Your task to perform on an android device: toggle notification dots Image 0: 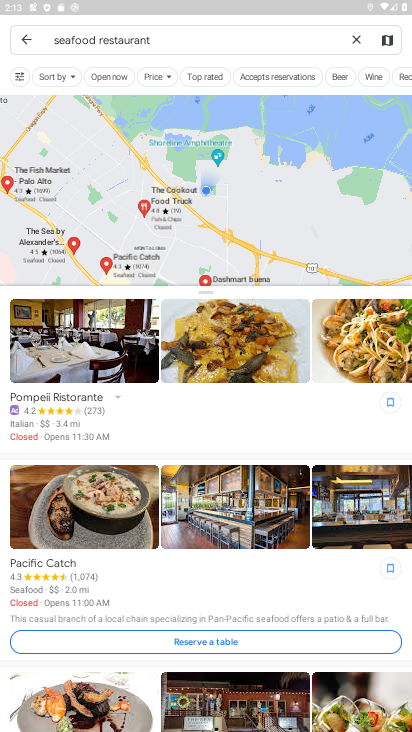
Step 0: press home button
Your task to perform on an android device: toggle notification dots Image 1: 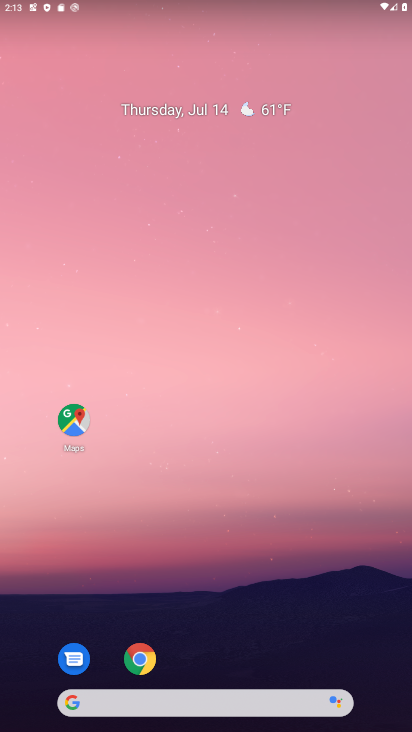
Step 1: drag from (351, 639) to (231, 94)
Your task to perform on an android device: toggle notification dots Image 2: 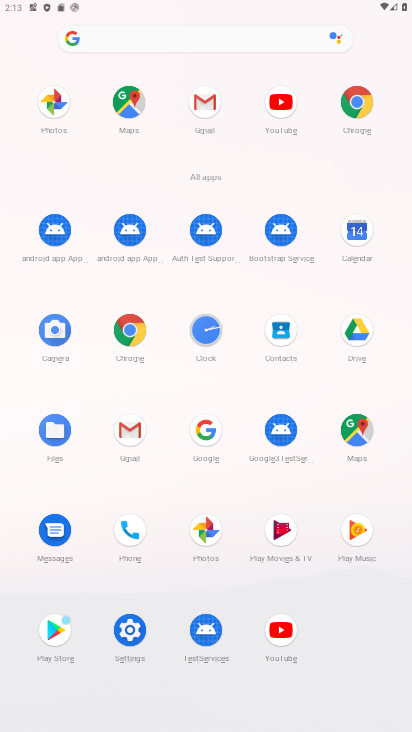
Step 2: click (131, 631)
Your task to perform on an android device: toggle notification dots Image 3: 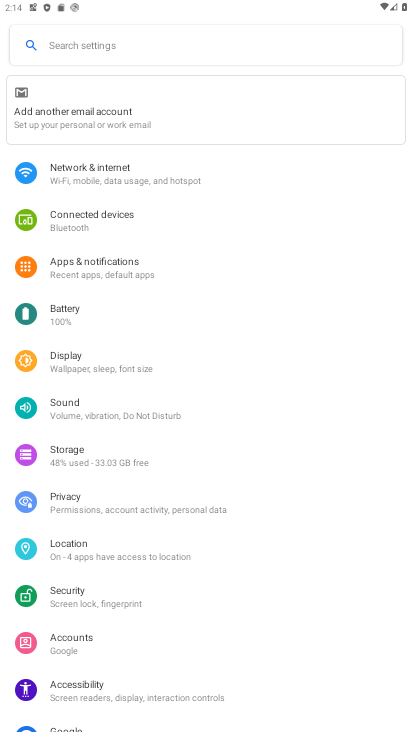
Step 3: click (114, 275)
Your task to perform on an android device: toggle notification dots Image 4: 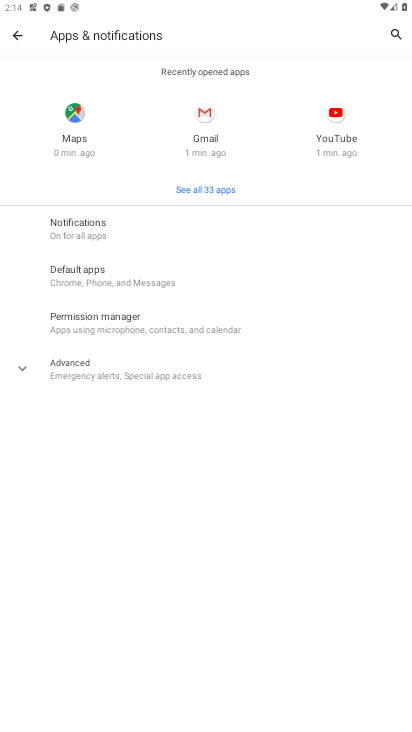
Step 4: click (106, 234)
Your task to perform on an android device: toggle notification dots Image 5: 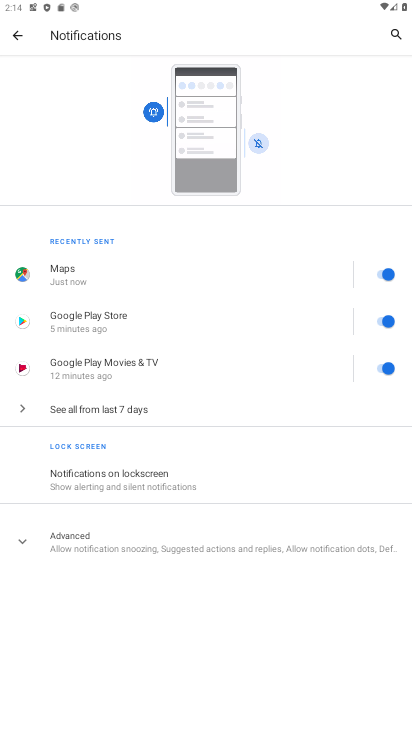
Step 5: click (250, 539)
Your task to perform on an android device: toggle notification dots Image 6: 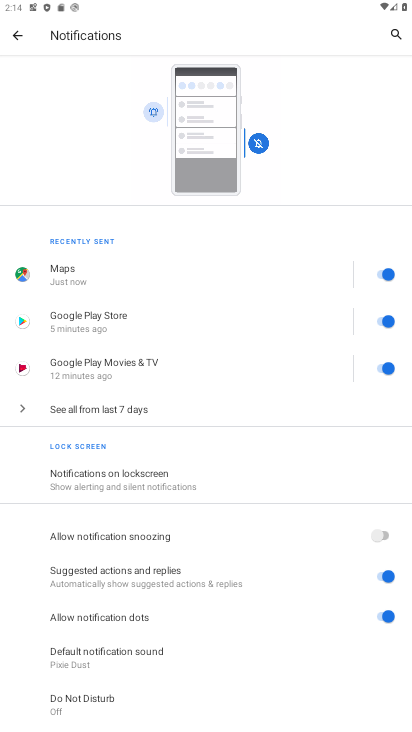
Step 6: click (391, 614)
Your task to perform on an android device: toggle notification dots Image 7: 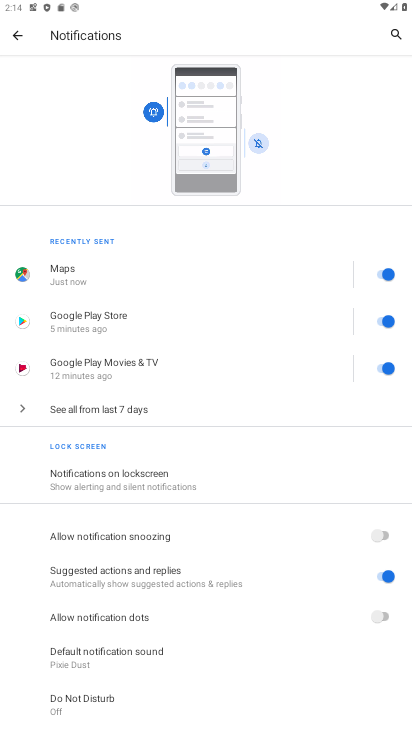
Step 7: task complete